Your task to perform on an android device: add a label to a message in the gmail app Image 0: 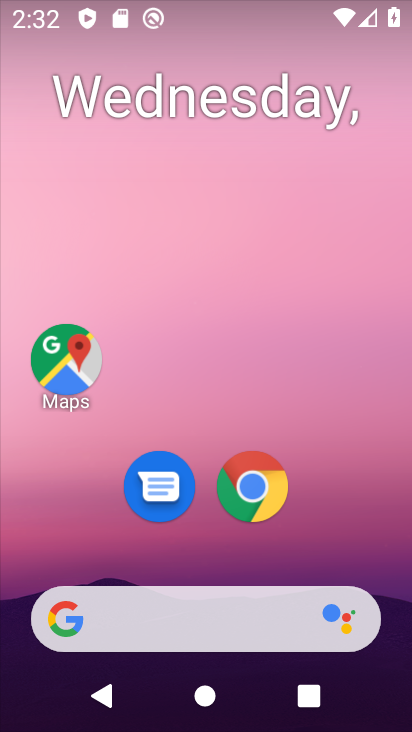
Step 0: click (206, 396)
Your task to perform on an android device: add a label to a message in the gmail app Image 1: 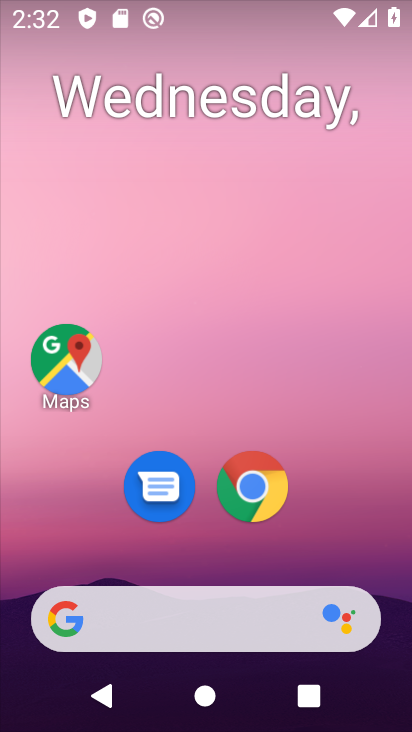
Step 1: drag from (202, 590) to (275, 244)
Your task to perform on an android device: add a label to a message in the gmail app Image 2: 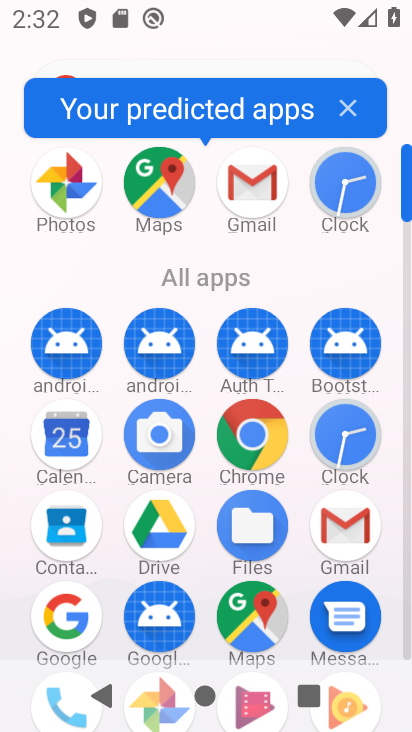
Step 2: click (261, 192)
Your task to perform on an android device: add a label to a message in the gmail app Image 3: 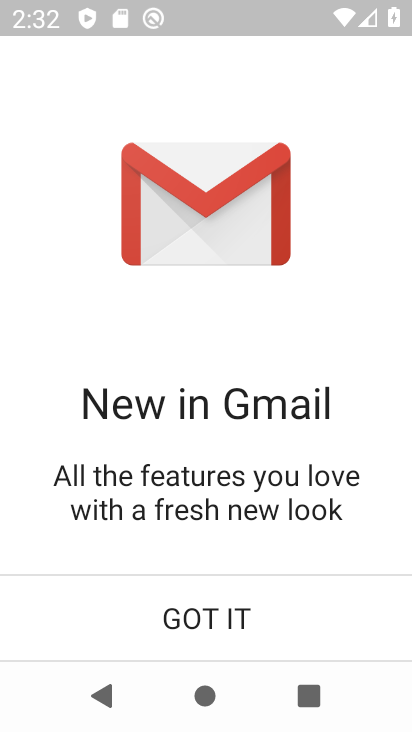
Step 3: click (233, 623)
Your task to perform on an android device: add a label to a message in the gmail app Image 4: 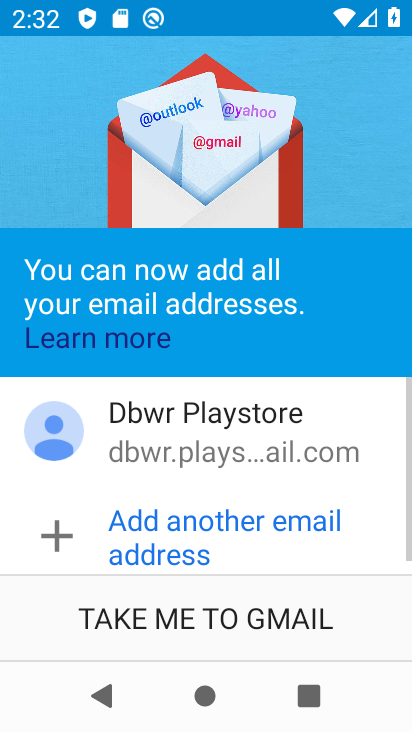
Step 4: click (233, 623)
Your task to perform on an android device: add a label to a message in the gmail app Image 5: 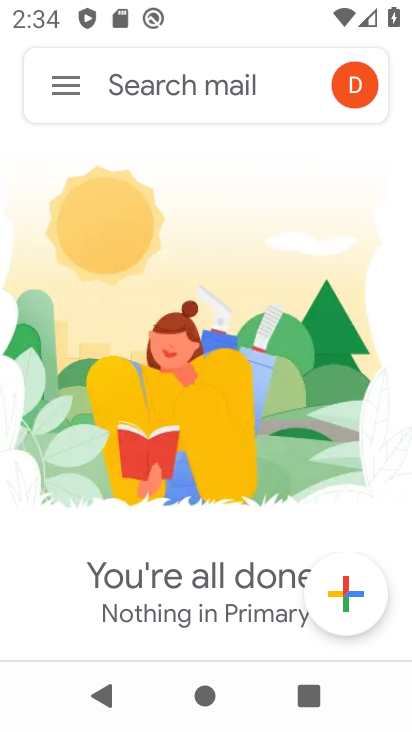
Step 5: click (65, 84)
Your task to perform on an android device: add a label to a message in the gmail app Image 6: 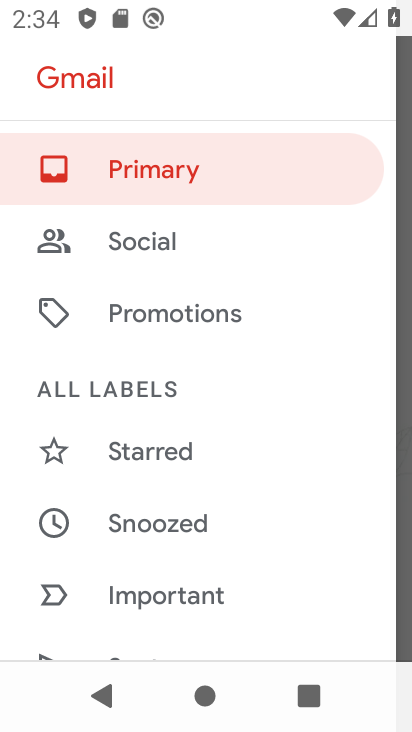
Step 6: click (158, 527)
Your task to perform on an android device: add a label to a message in the gmail app Image 7: 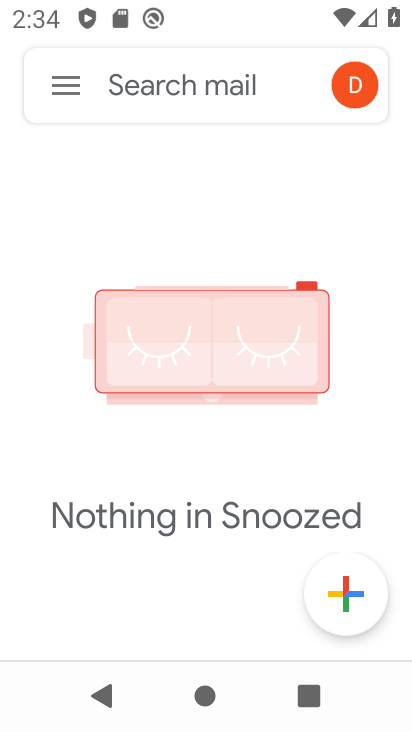
Step 7: task complete